Your task to perform on an android device: search for starred emails in the gmail app Image 0: 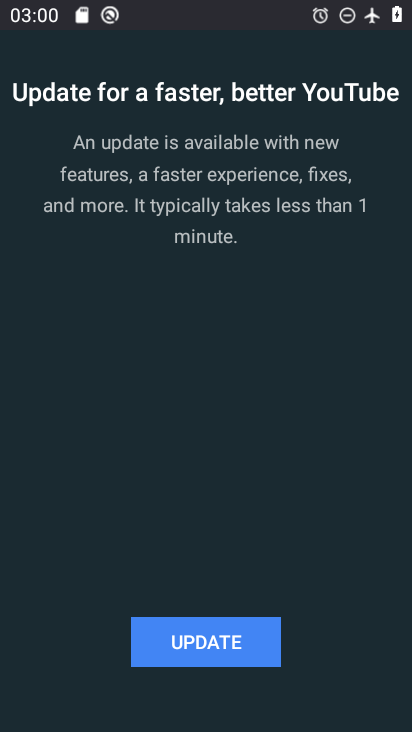
Step 0: press home button
Your task to perform on an android device: search for starred emails in the gmail app Image 1: 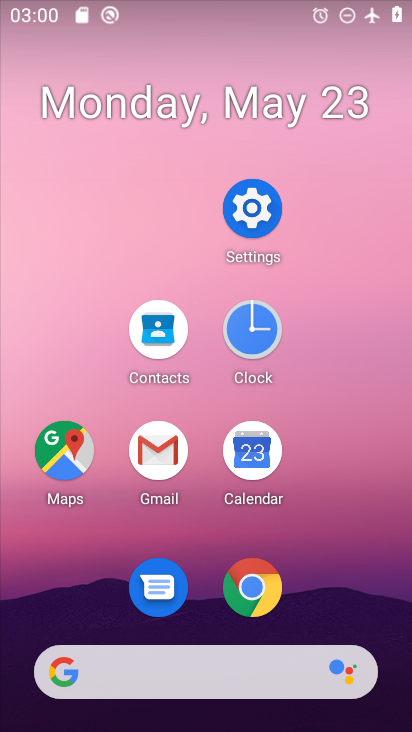
Step 1: click (168, 464)
Your task to perform on an android device: search for starred emails in the gmail app Image 2: 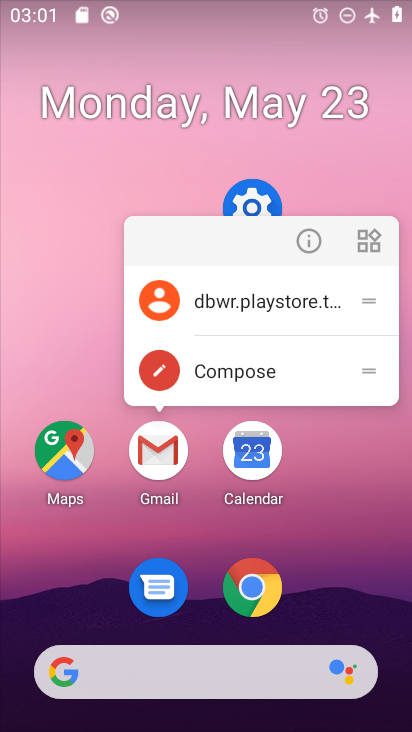
Step 2: click (156, 481)
Your task to perform on an android device: search for starred emails in the gmail app Image 3: 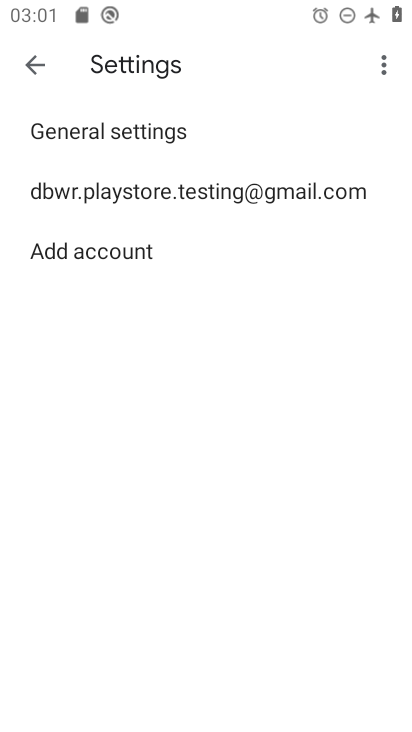
Step 3: click (24, 57)
Your task to perform on an android device: search for starred emails in the gmail app Image 4: 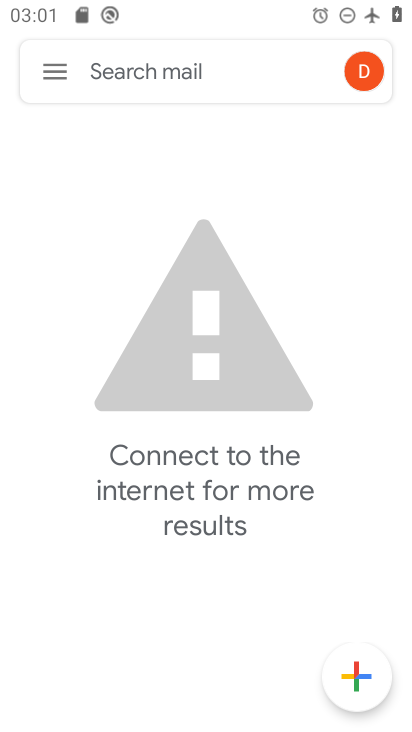
Step 4: click (60, 85)
Your task to perform on an android device: search for starred emails in the gmail app Image 5: 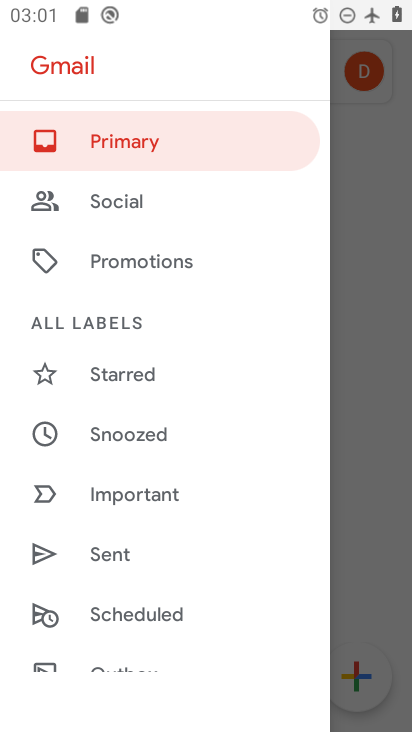
Step 5: click (141, 377)
Your task to perform on an android device: search for starred emails in the gmail app Image 6: 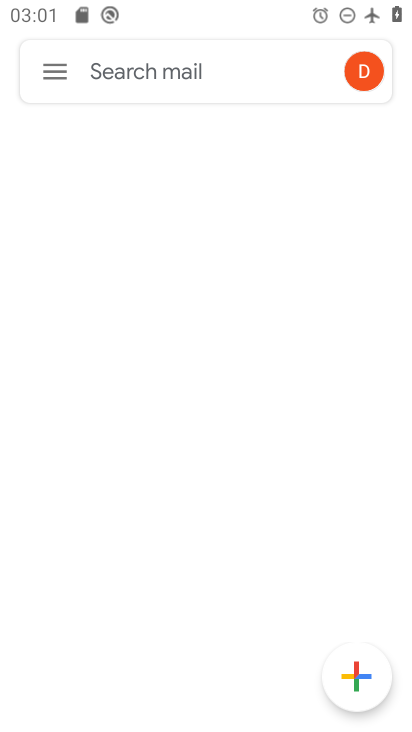
Step 6: task complete